Your task to perform on an android device: Go to Yahoo.com Image 0: 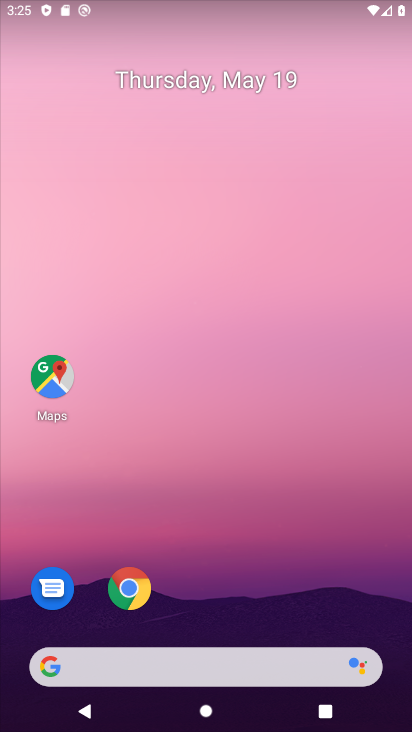
Step 0: drag from (278, 687) to (293, 13)
Your task to perform on an android device: Go to Yahoo.com Image 1: 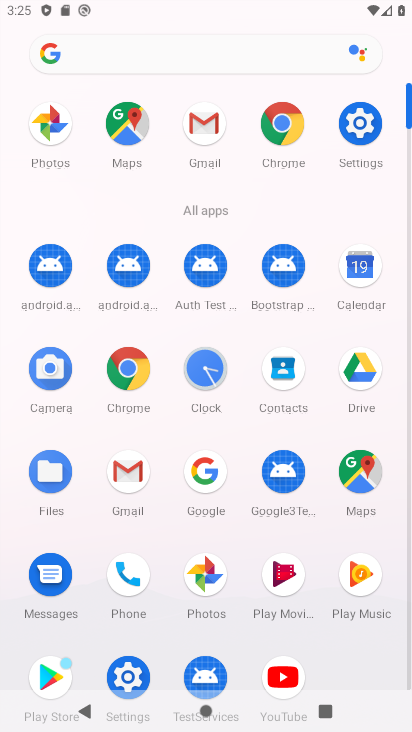
Step 1: click (292, 138)
Your task to perform on an android device: Go to Yahoo.com Image 2: 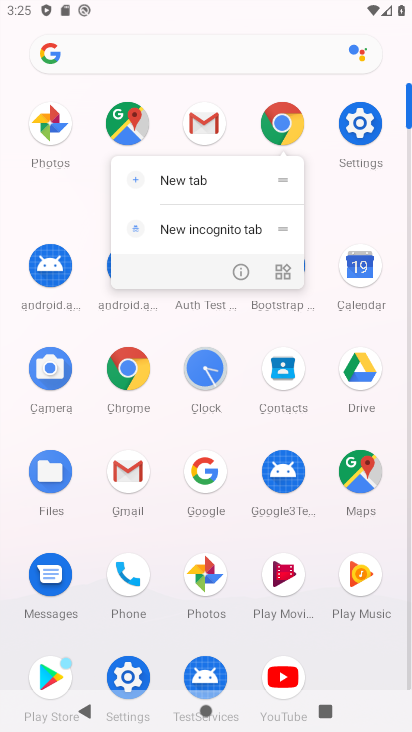
Step 2: click (293, 132)
Your task to perform on an android device: Go to Yahoo.com Image 3: 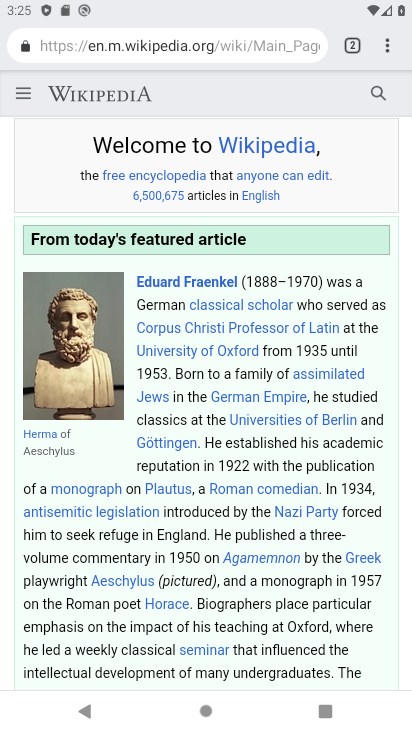
Step 3: click (346, 46)
Your task to perform on an android device: Go to Yahoo.com Image 4: 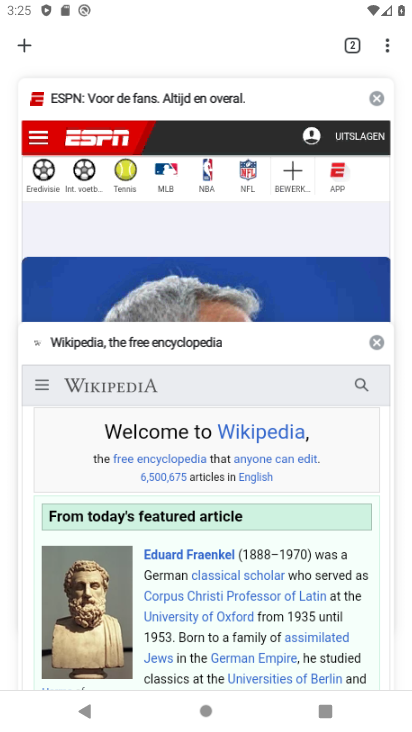
Step 4: click (28, 48)
Your task to perform on an android device: Go to Yahoo.com Image 5: 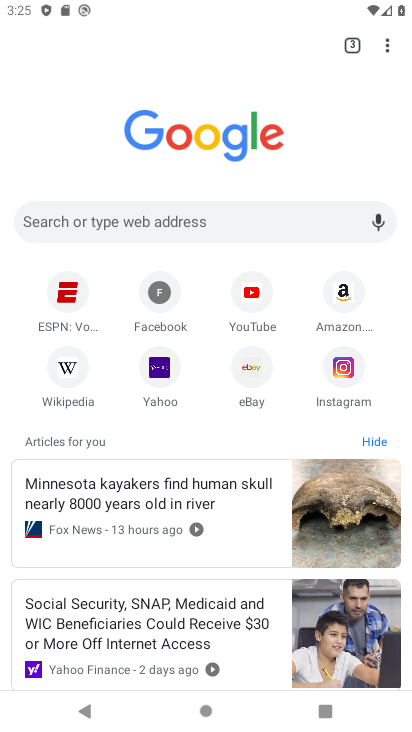
Step 5: click (158, 359)
Your task to perform on an android device: Go to Yahoo.com Image 6: 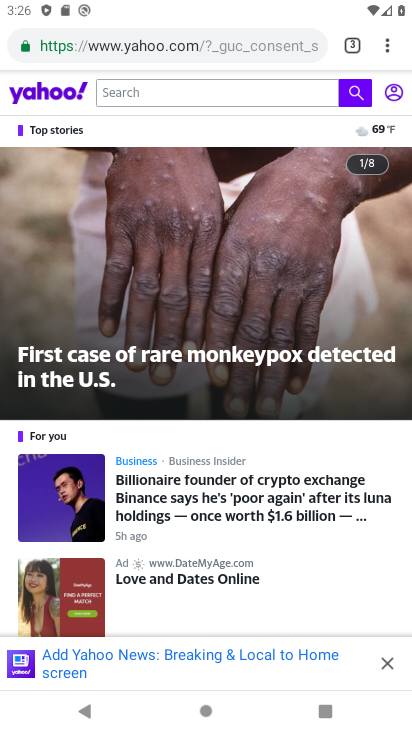
Step 6: task complete